Your task to perform on an android device: turn off sleep mode Image 0: 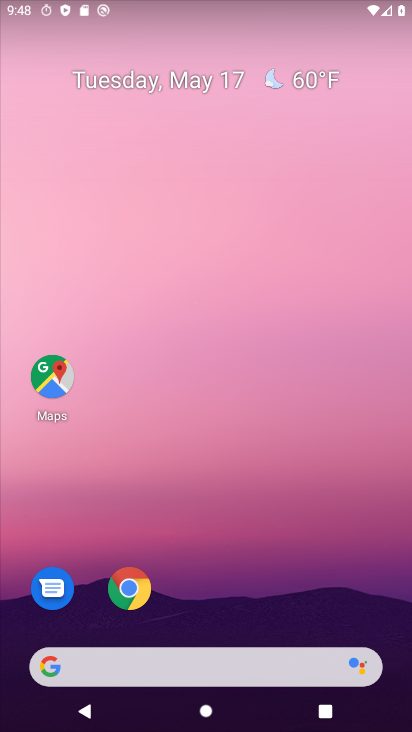
Step 0: drag from (292, 697) to (207, 152)
Your task to perform on an android device: turn off sleep mode Image 1: 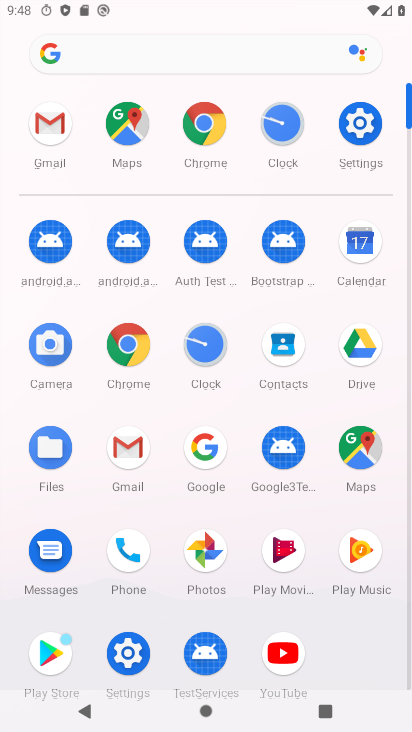
Step 1: click (353, 118)
Your task to perform on an android device: turn off sleep mode Image 2: 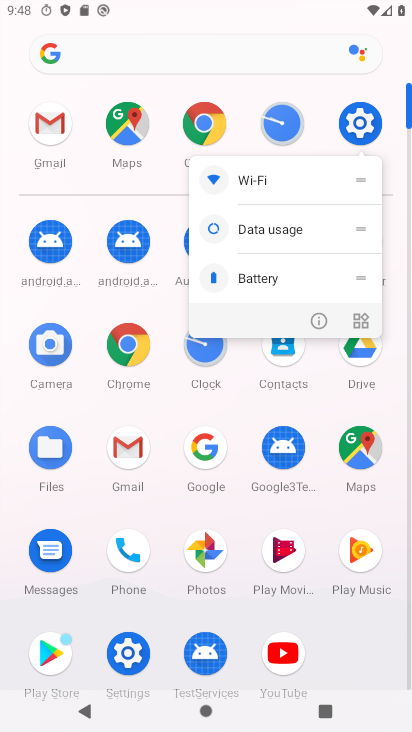
Step 2: click (364, 116)
Your task to perform on an android device: turn off sleep mode Image 3: 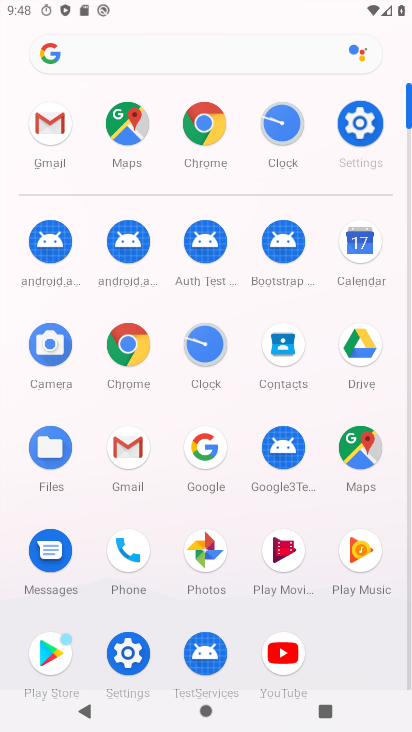
Step 3: click (364, 116)
Your task to perform on an android device: turn off sleep mode Image 4: 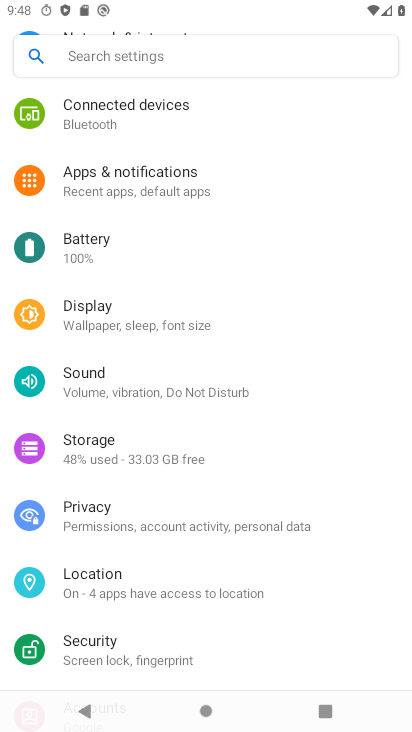
Step 4: click (86, 318)
Your task to perform on an android device: turn off sleep mode Image 5: 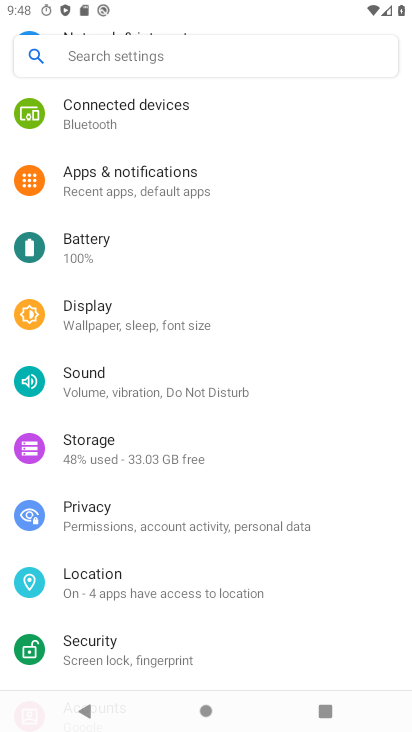
Step 5: click (86, 317)
Your task to perform on an android device: turn off sleep mode Image 6: 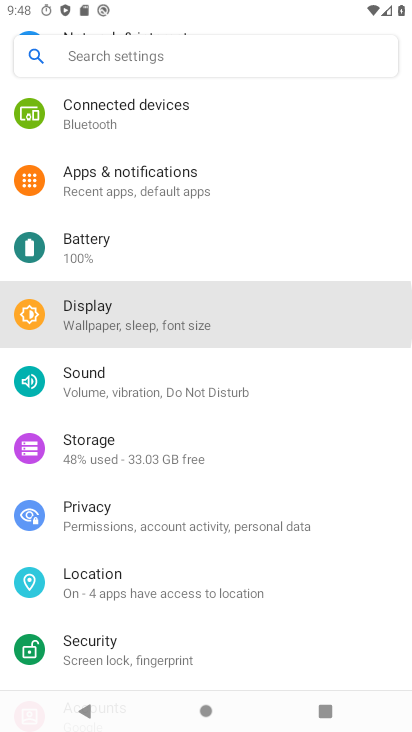
Step 6: click (86, 317)
Your task to perform on an android device: turn off sleep mode Image 7: 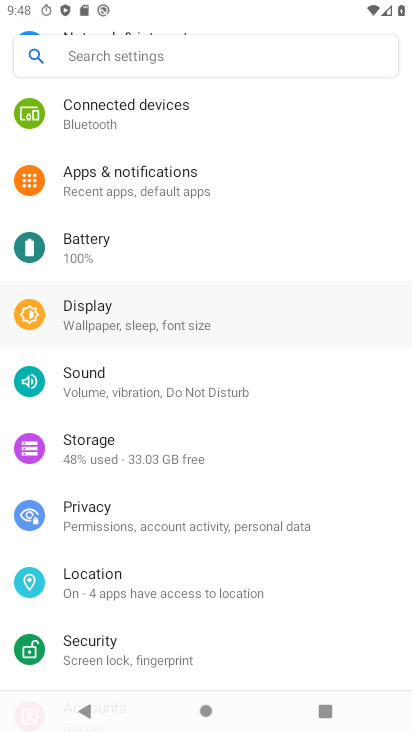
Step 7: click (85, 308)
Your task to perform on an android device: turn off sleep mode Image 8: 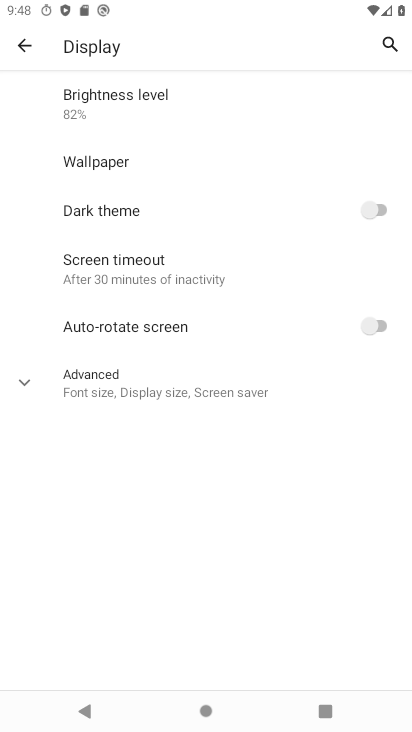
Step 8: task complete